Your task to perform on an android device: open app "Booking.com: Hotels and more" Image 0: 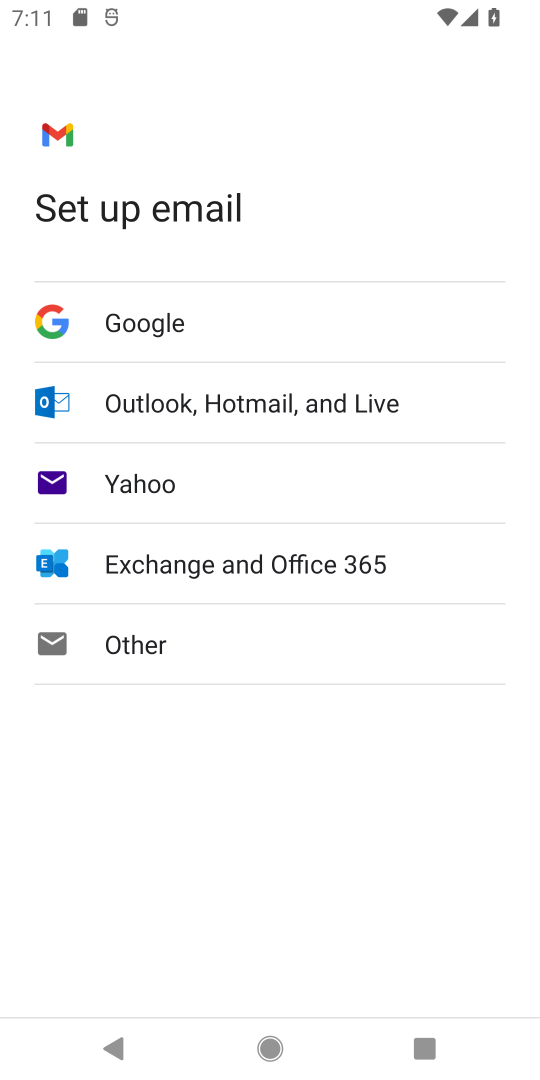
Step 0: press back button
Your task to perform on an android device: open app "Booking.com: Hotels and more" Image 1: 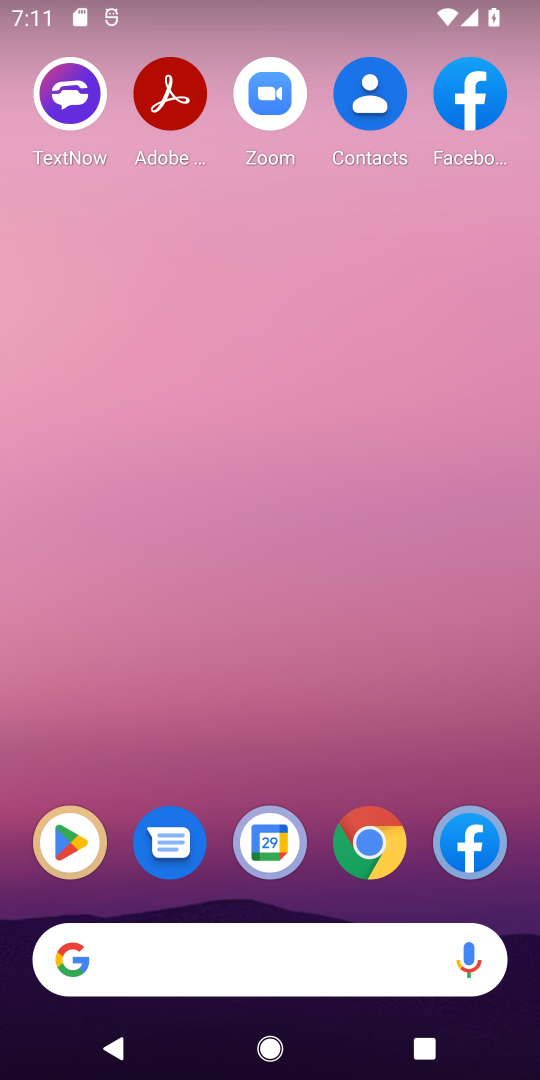
Step 1: drag from (354, 899) to (323, 77)
Your task to perform on an android device: open app "Booking.com: Hotels and more" Image 2: 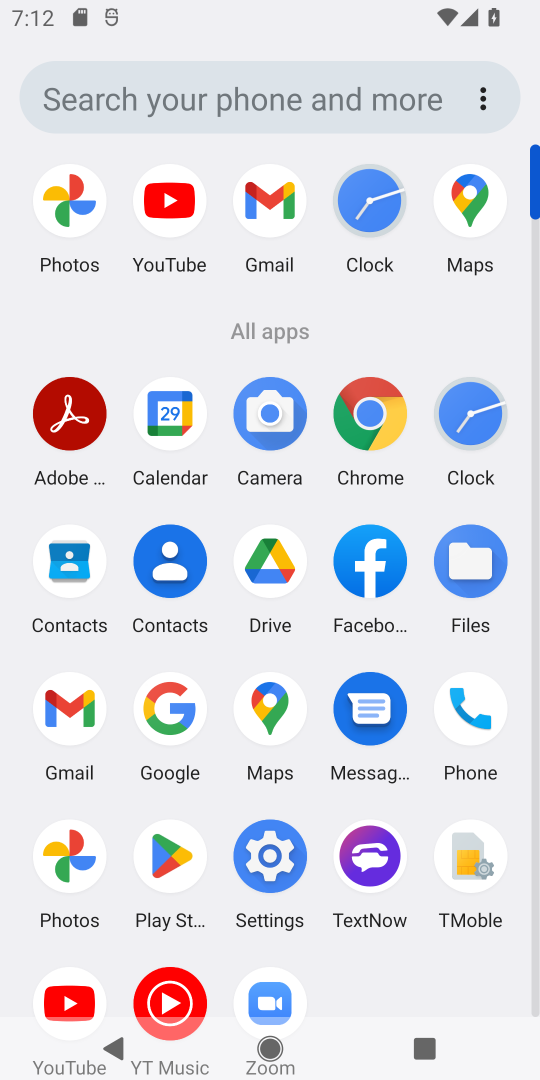
Step 2: click (162, 830)
Your task to perform on an android device: open app "Booking.com: Hotels and more" Image 3: 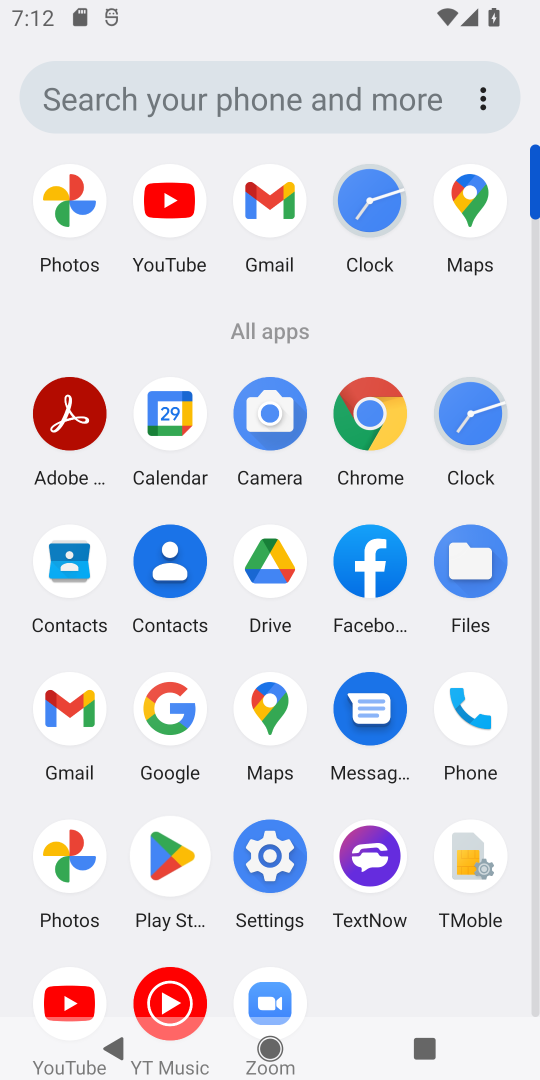
Step 3: click (155, 837)
Your task to perform on an android device: open app "Booking.com: Hotels and more" Image 4: 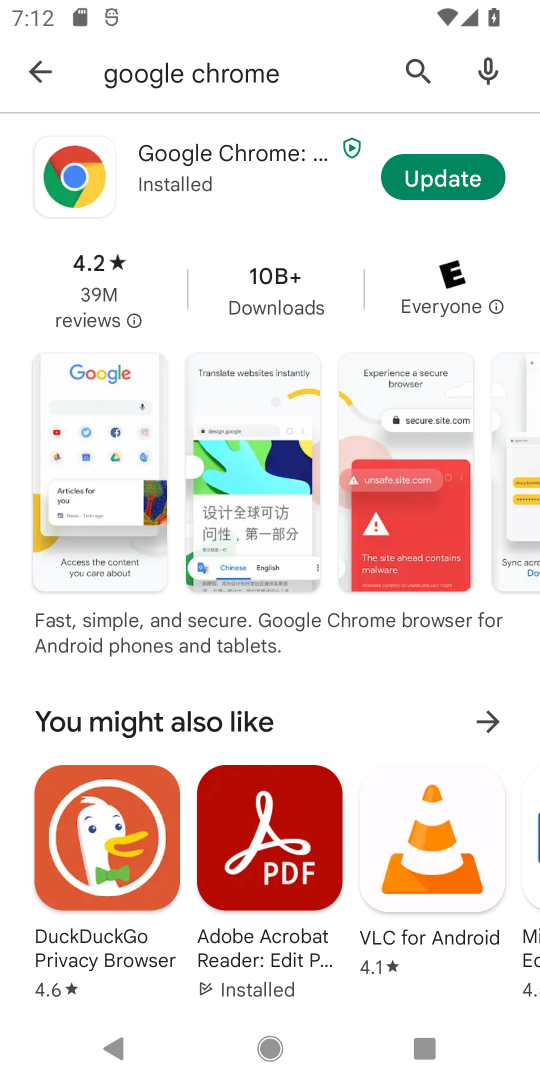
Step 4: click (27, 67)
Your task to perform on an android device: open app "Booking.com: Hotels and more" Image 5: 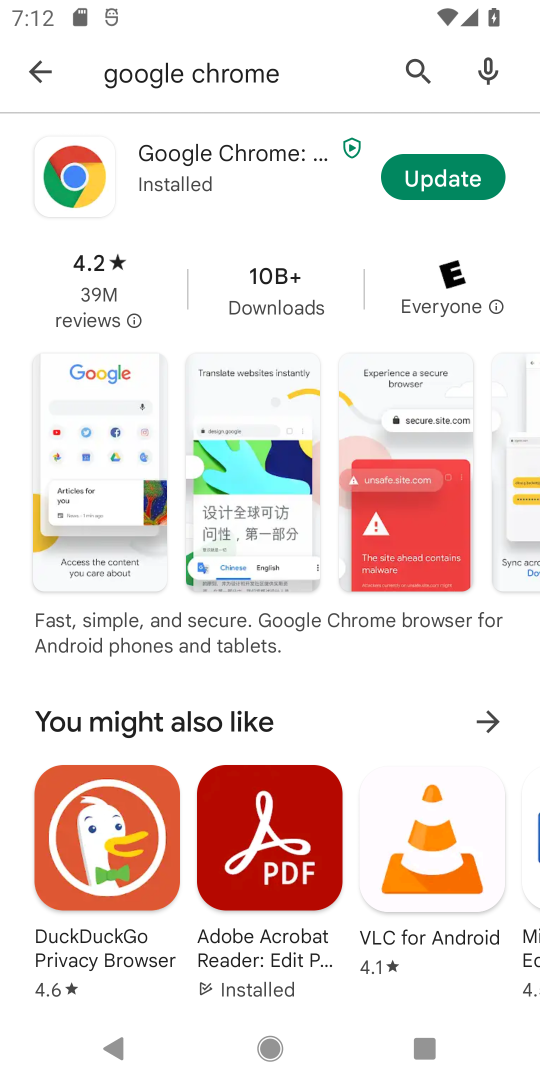
Step 5: click (29, 65)
Your task to perform on an android device: open app "Booking.com: Hotels and more" Image 6: 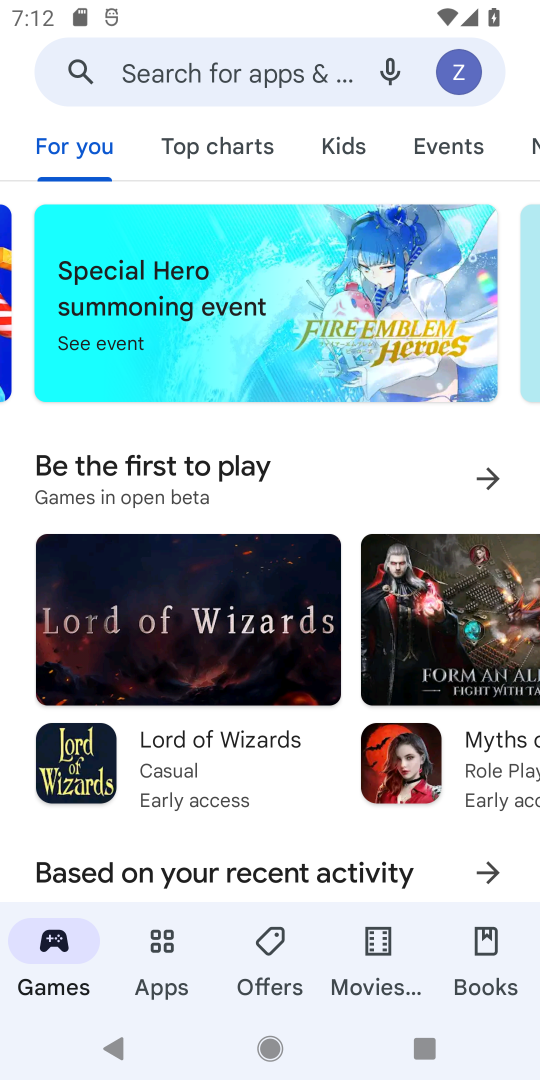
Step 6: click (133, 64)
Your task to perform on an android device: open app "Booking.com: Hotels and more" Image 7: 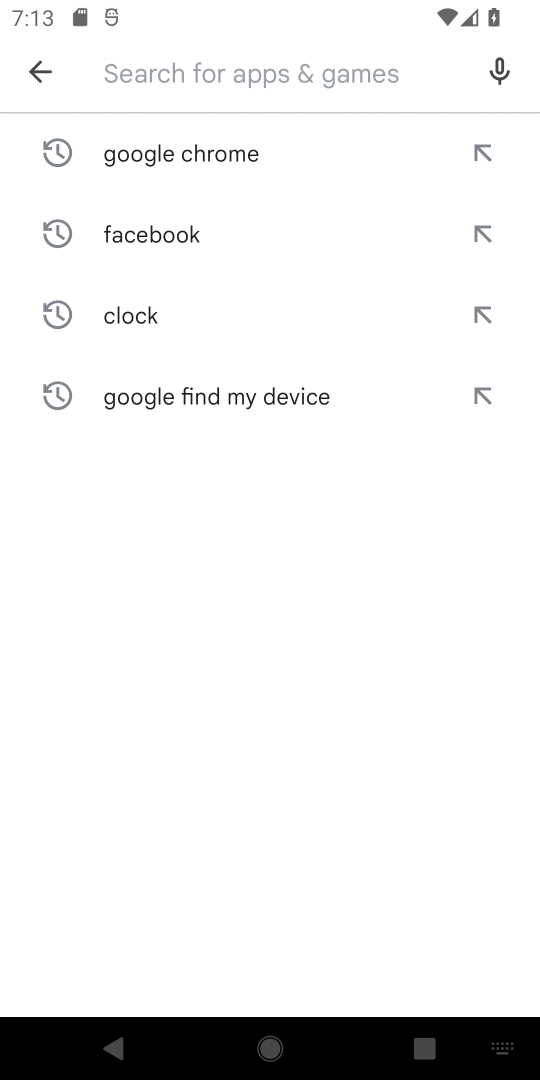
Step 7: type "Booking.com: Hotels and more"
Your task to perform on an android device: open app "Booking.com: Hotels and more" Image 8: 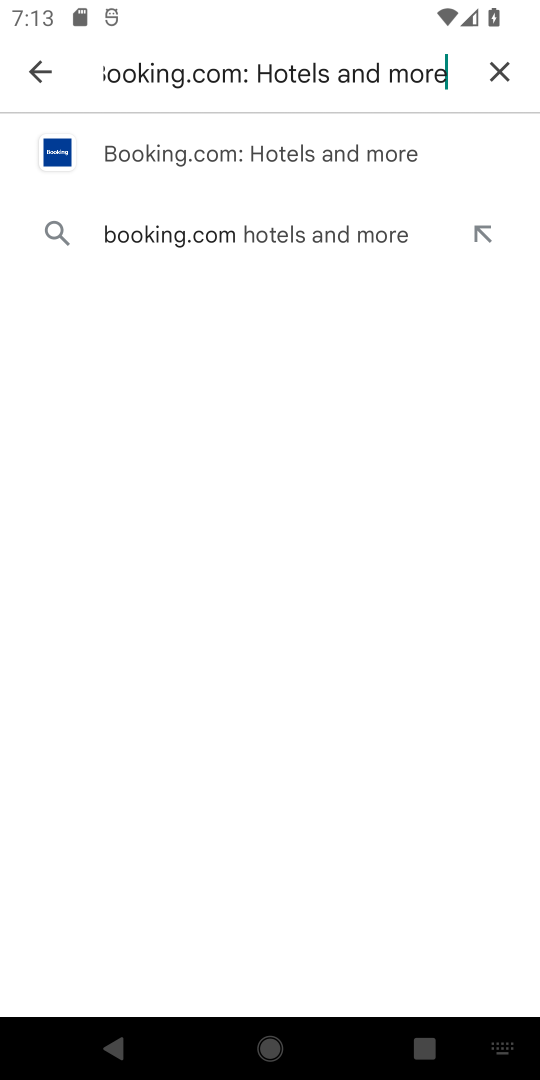
Step 8: click (184, 144)
Your task to perform on an android device: open app "Booking.com: Hotels and more" Image 9: 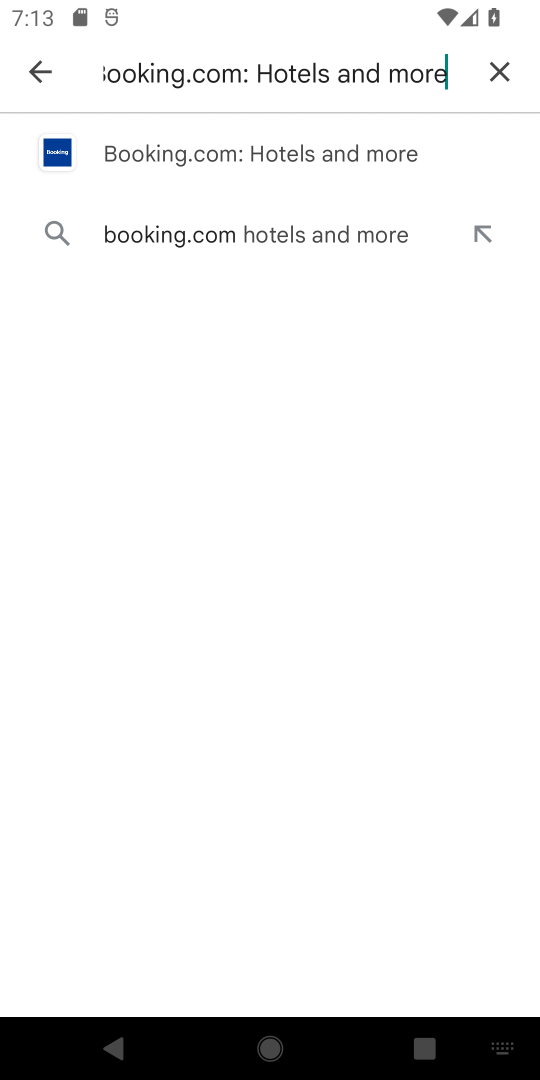
Step 9: click (187, 150)
Your task to perform on an android device: open app "Booking.com: Hotels and more" Image 10: 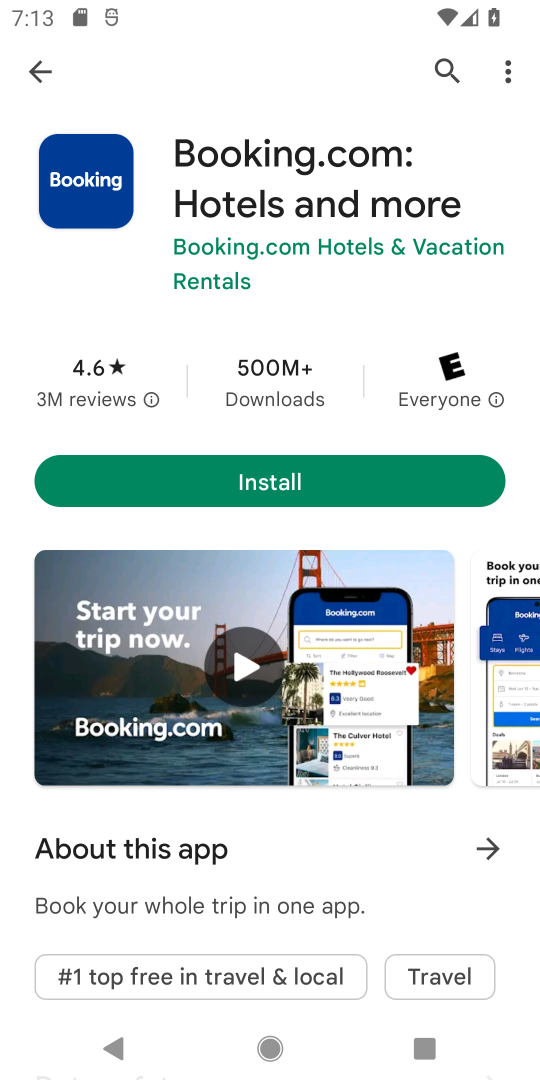
Step 10: click (314, 482)
Your task to perform on an android device: open app "Booking.com: Hotels and more" Image 11: 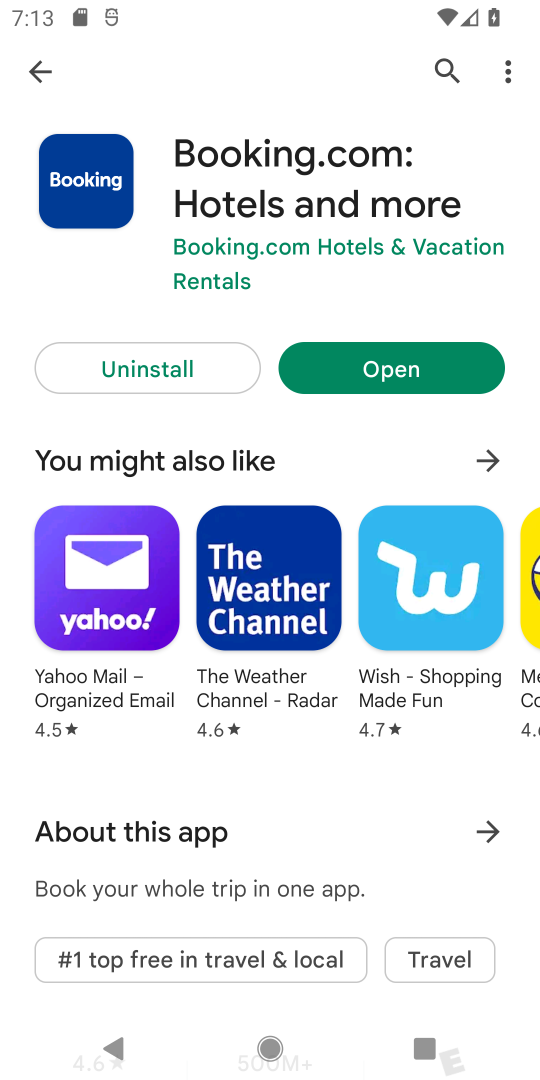
Step 11: click (387, 366)
Your task to perform on an android device: open app "Booking.com: Hotels and more" Image 12: 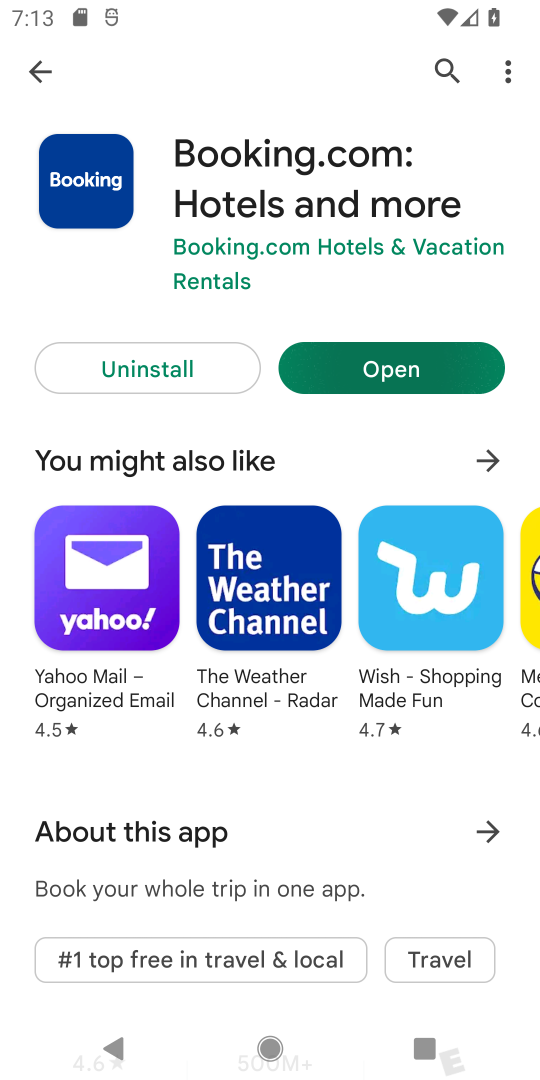
Step 12: click (387, 366)
Your task to perform on an android device: open app "Booking.com: Hotels and more" Image 13: 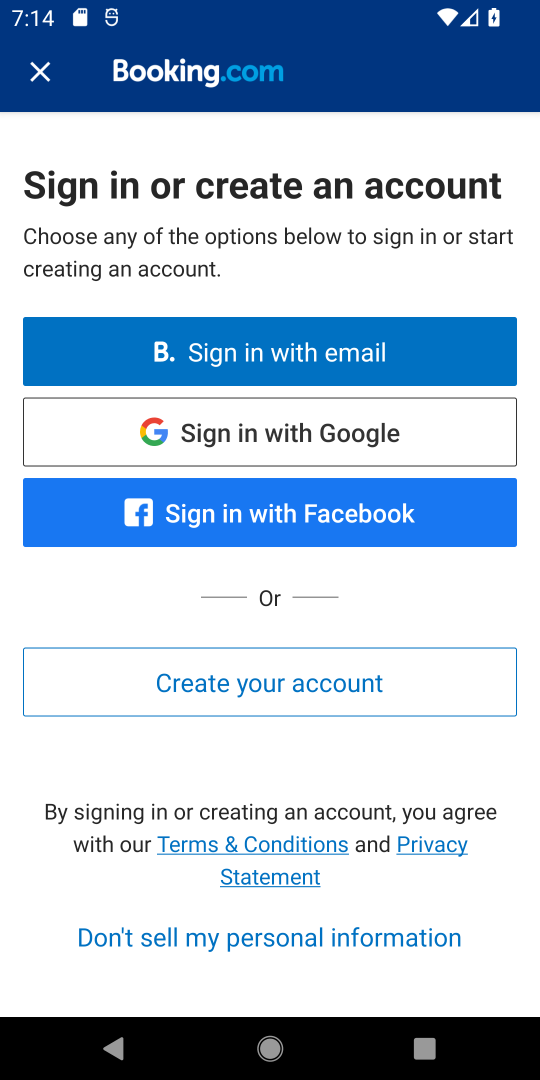
Step 13: task complete